Your task to perform on an android device: Search for sushi restaurants on Maps Image 0: 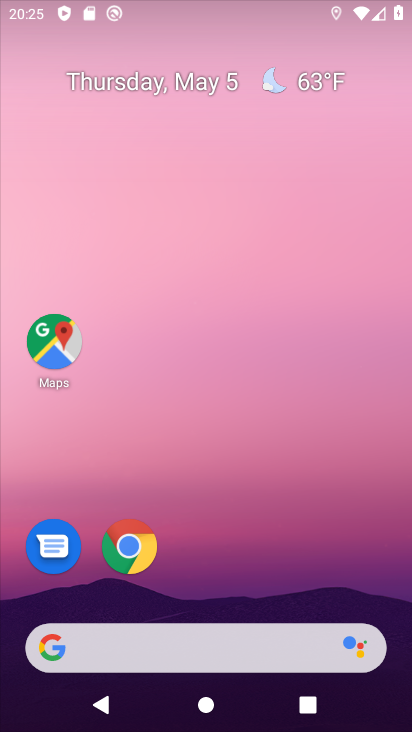
Step 0: press home button
Your task to perform on an android device: Search for sushi restaurants on Maps Image 1: 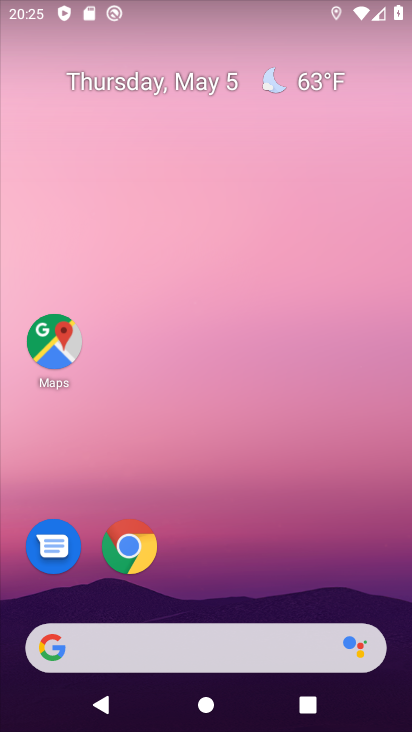
Step 1: click (51, 363)
Your task to perform on an android device: Search for sushi restaurants on Maps Image 2: 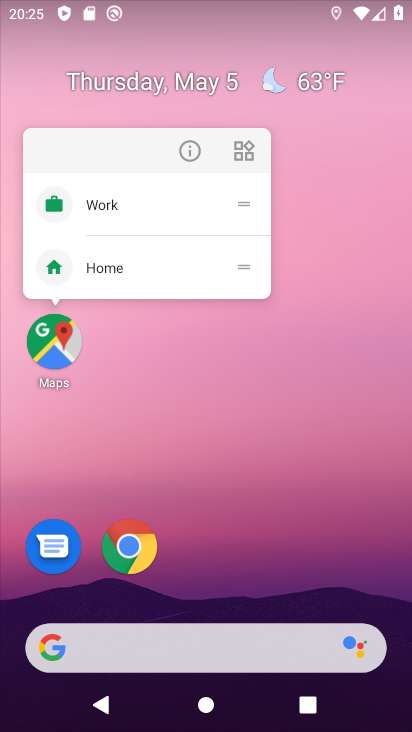
Step 2: click (61, 353)
Your task to perform on an android device: Search for sushi restaurants on Maps Image 3: 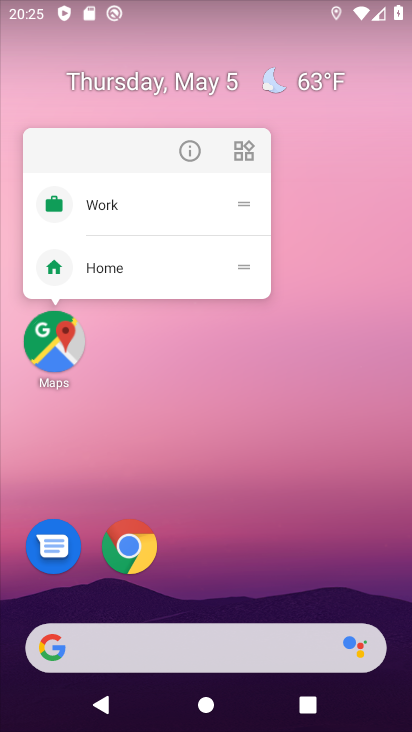
Step 3: click (61, 353)
Your task to perform on an android device: Search for sushi restaurants on Maps Image 4: 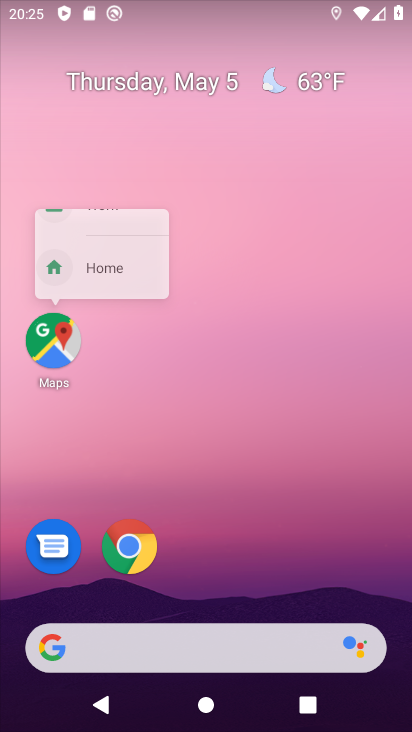
Step 4: click (61, 353)
Your task to perform on an android device: Search for sushi restaurants on Maps Image 5: 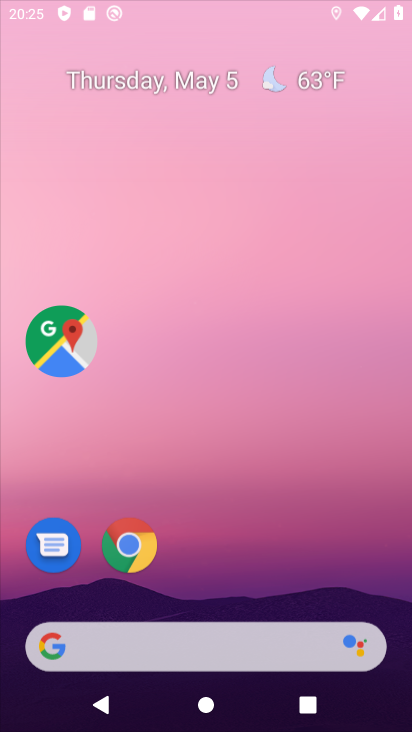
Step 5: click (61, 353)
Your task to perform on an android device: Search for sushi restaurants on Maps Image 6: 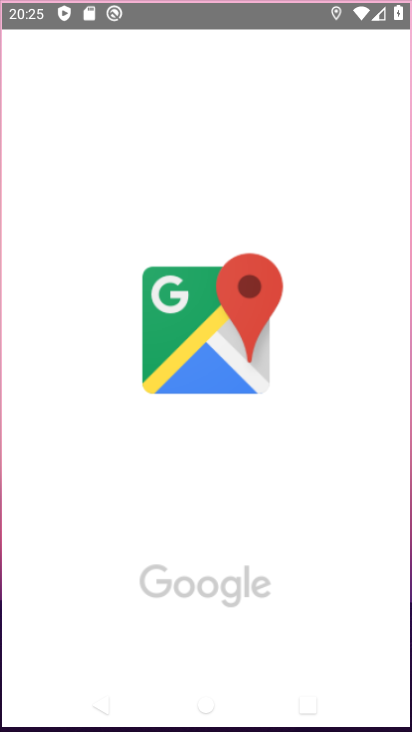
Step 6: click (61, 353)
Your task to perform on an android device: Search for sushi restaurants on Maps Image 7: 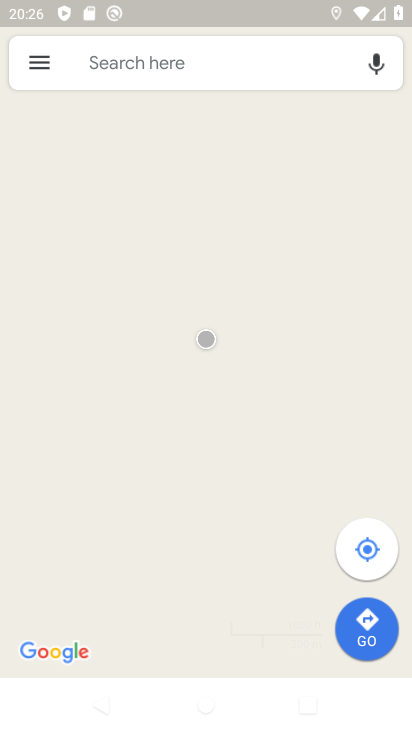
Step 7: click (96, 64)
Your task to perform on an android device: Search for sushi restaurants on Maps Image 8: 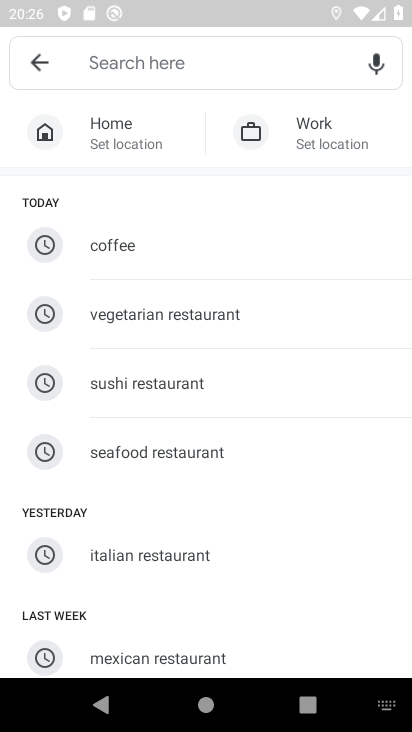
Step 8: type "sushi restaurants"
Your task to perform on an android device: Search for sushi restaurants on Maps Image 9: 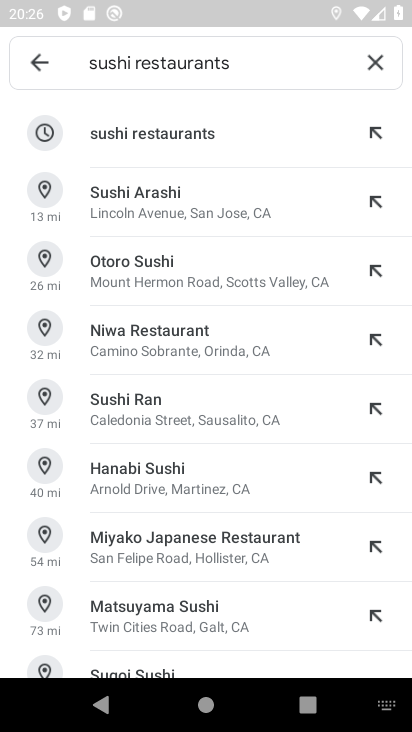
Step 9: click (177, 140)
Your task to perform on an android device: Search for sushi restaurants on Maps Image 10: 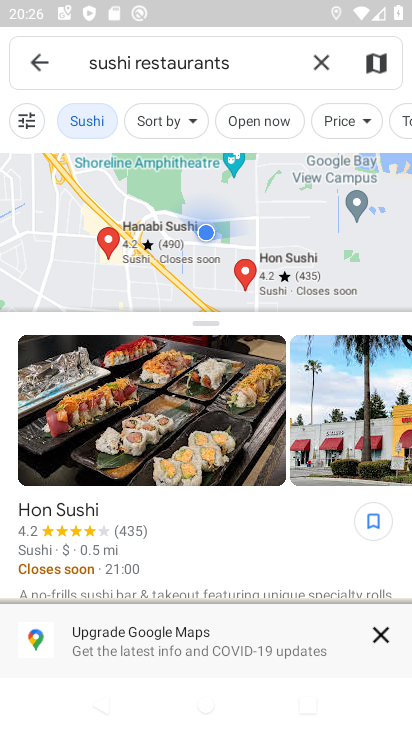
Step 10: task complete